Your task to perform on an android device: open app "Facebook Lite" Image 0: 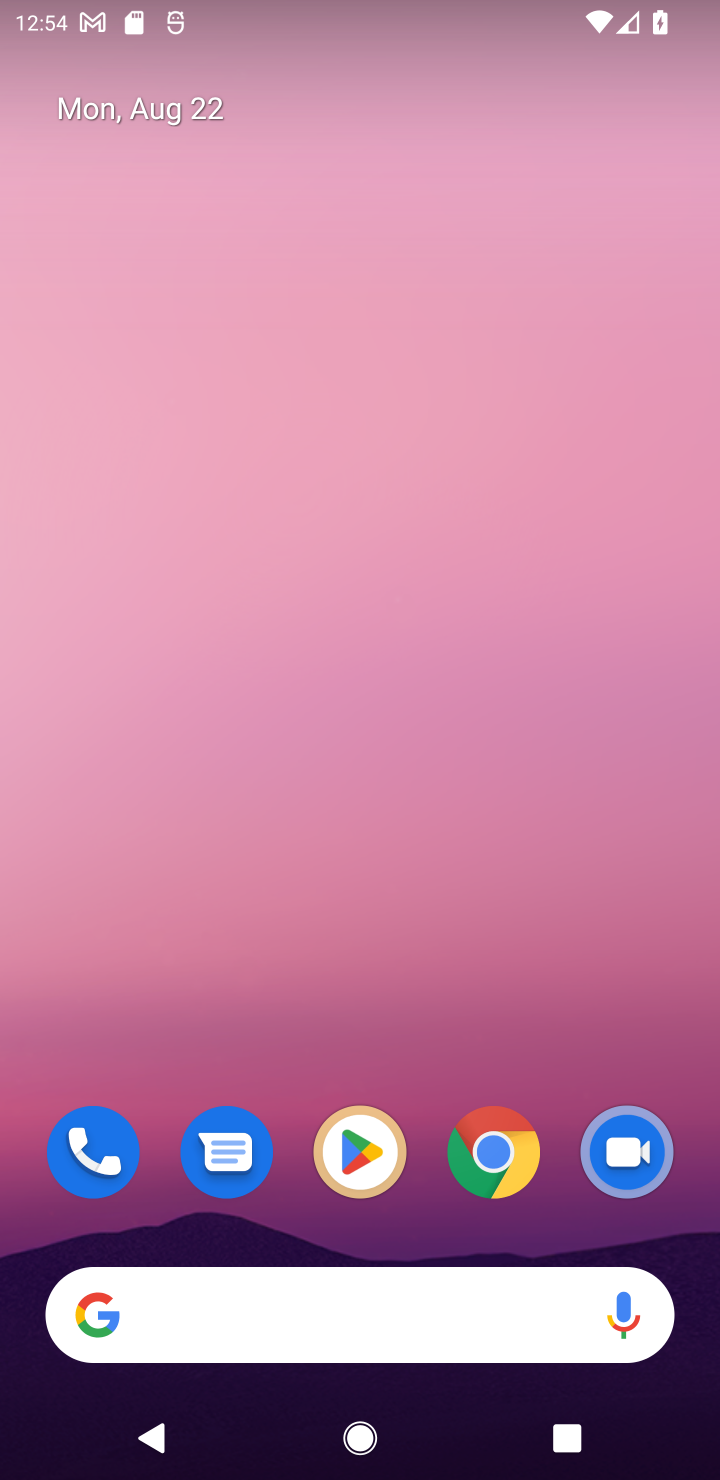
Step 0: click (345, 1137)
Your task to perform on an android device: open app "Facebook Lite" Image 1: 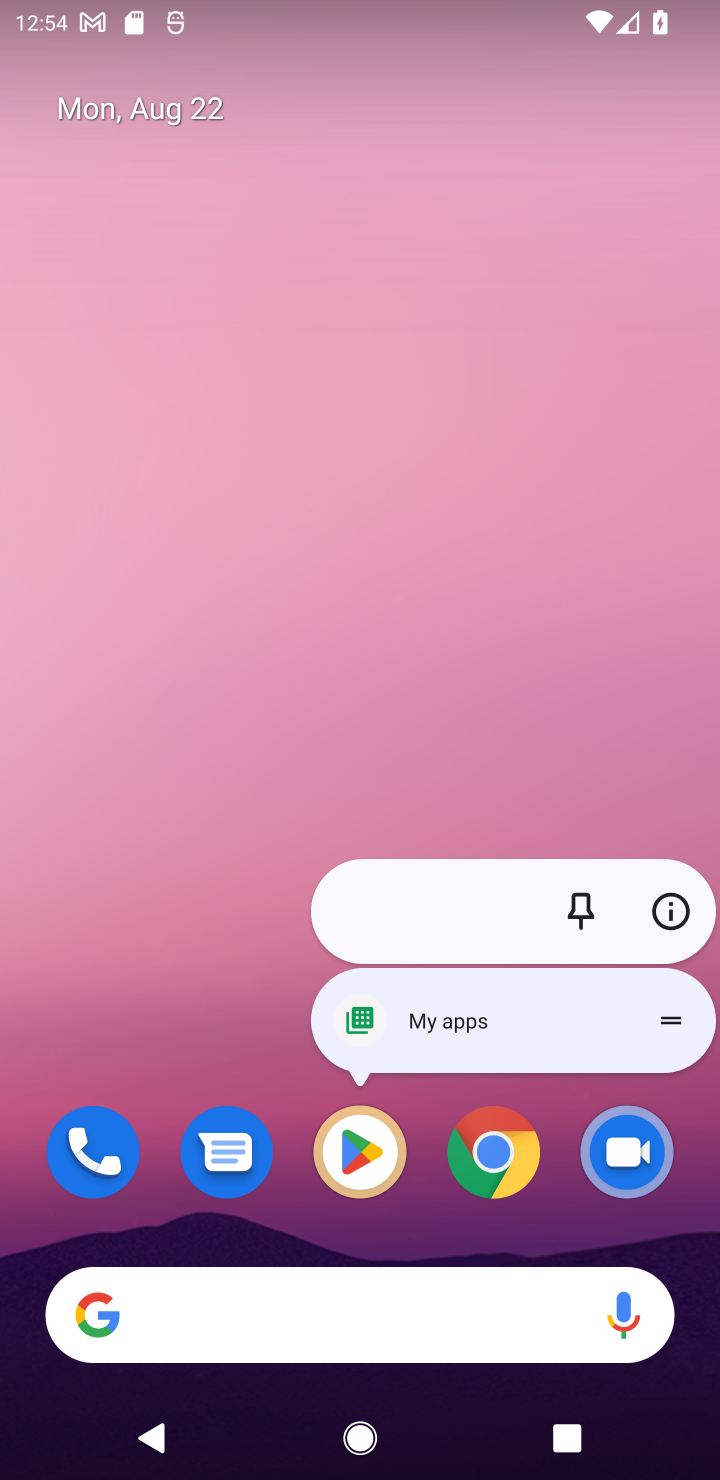
Step 1: click (345, 1169)
Your task to perform on an android device: open app "Facebook Lite" Image 2: 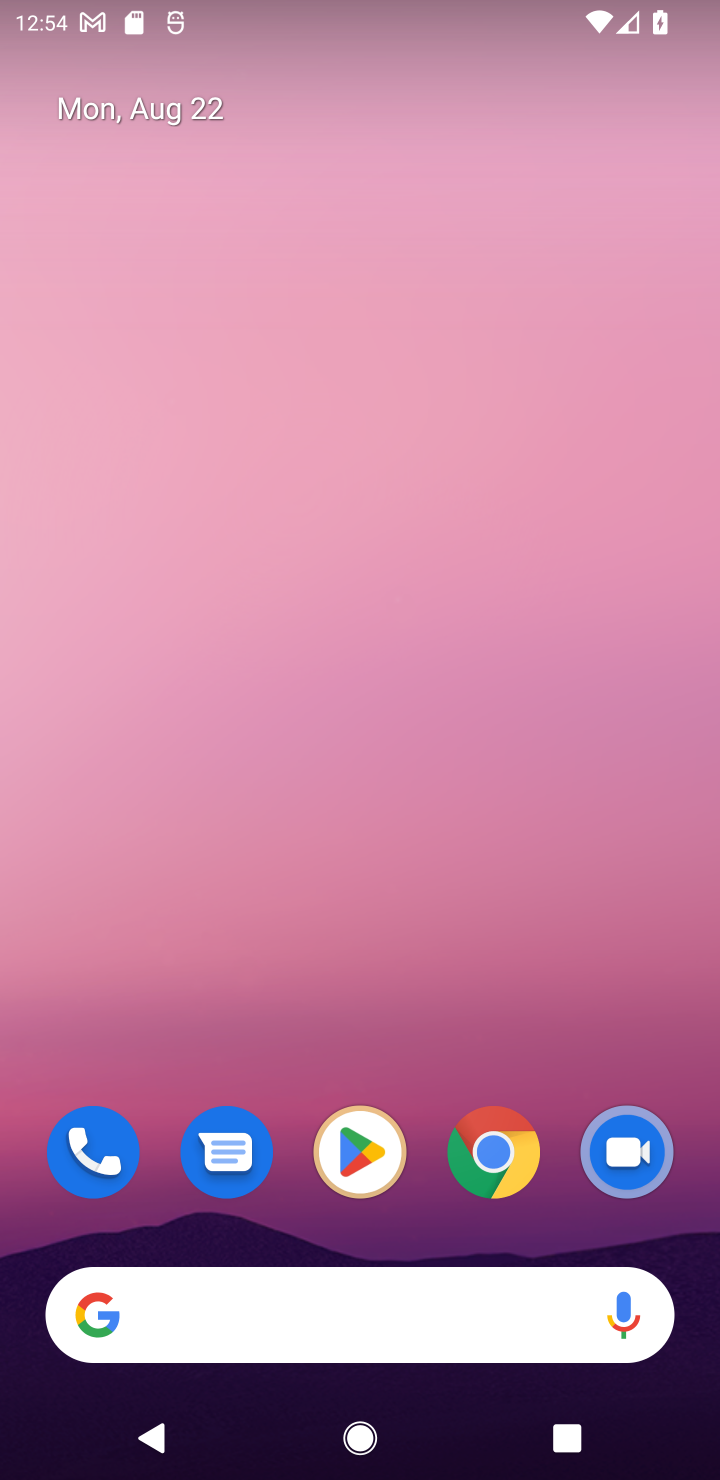
Step 2: click (345, 1169)
Your task to perform on an android device: open app "Facebook Lite" Image 3: 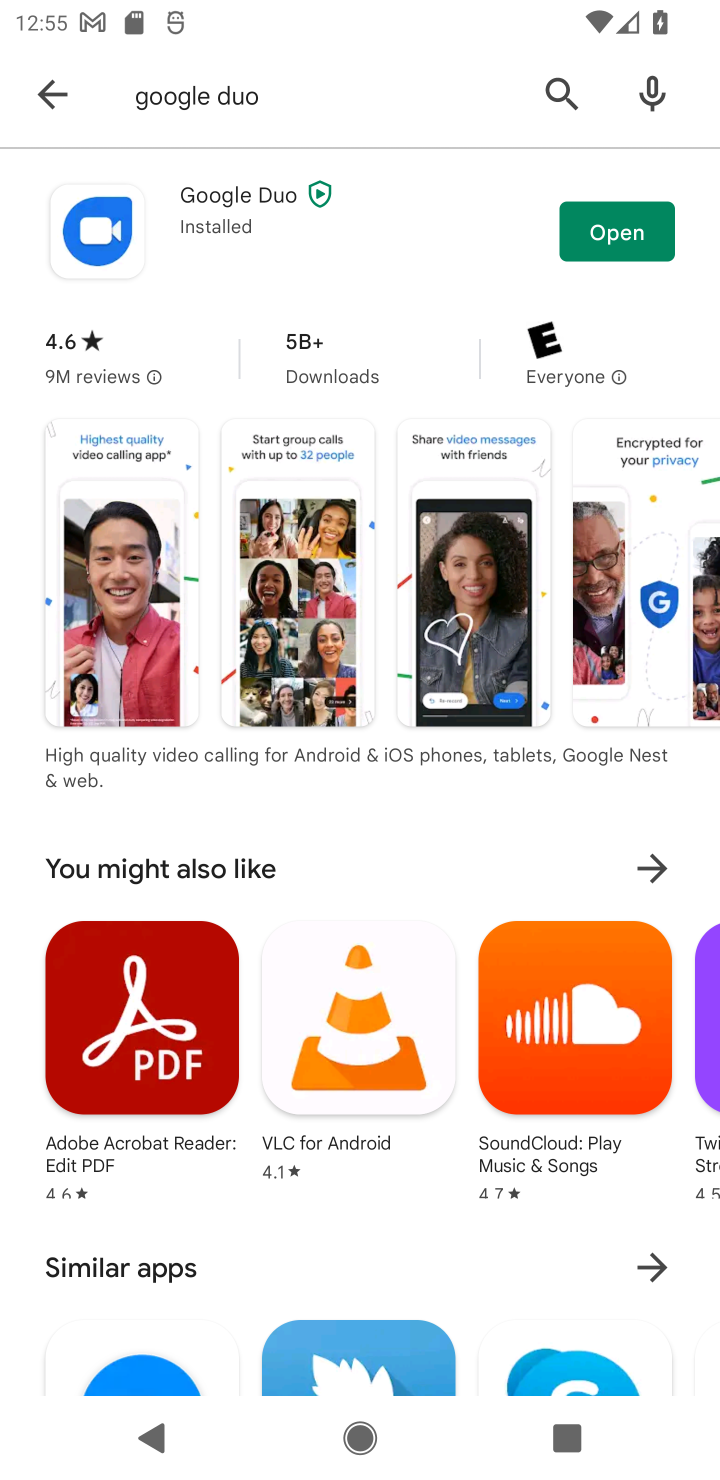
Step 3: click (39, 95)
Your task to perform on an android device: open app "Facebook Lite" Image 4: 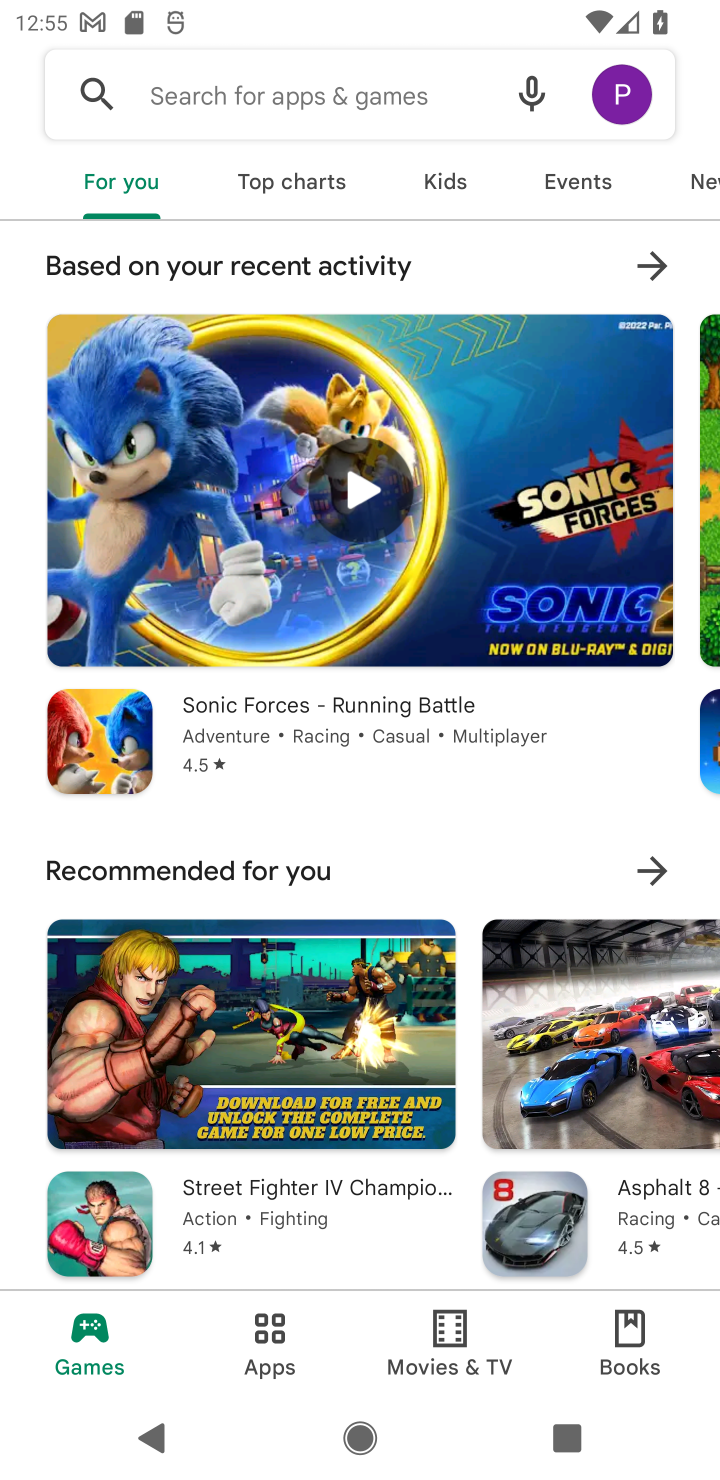
Step 4: click (275, 78)
Your task to perform on an android device: open app "Facebook Lite" Image 5: 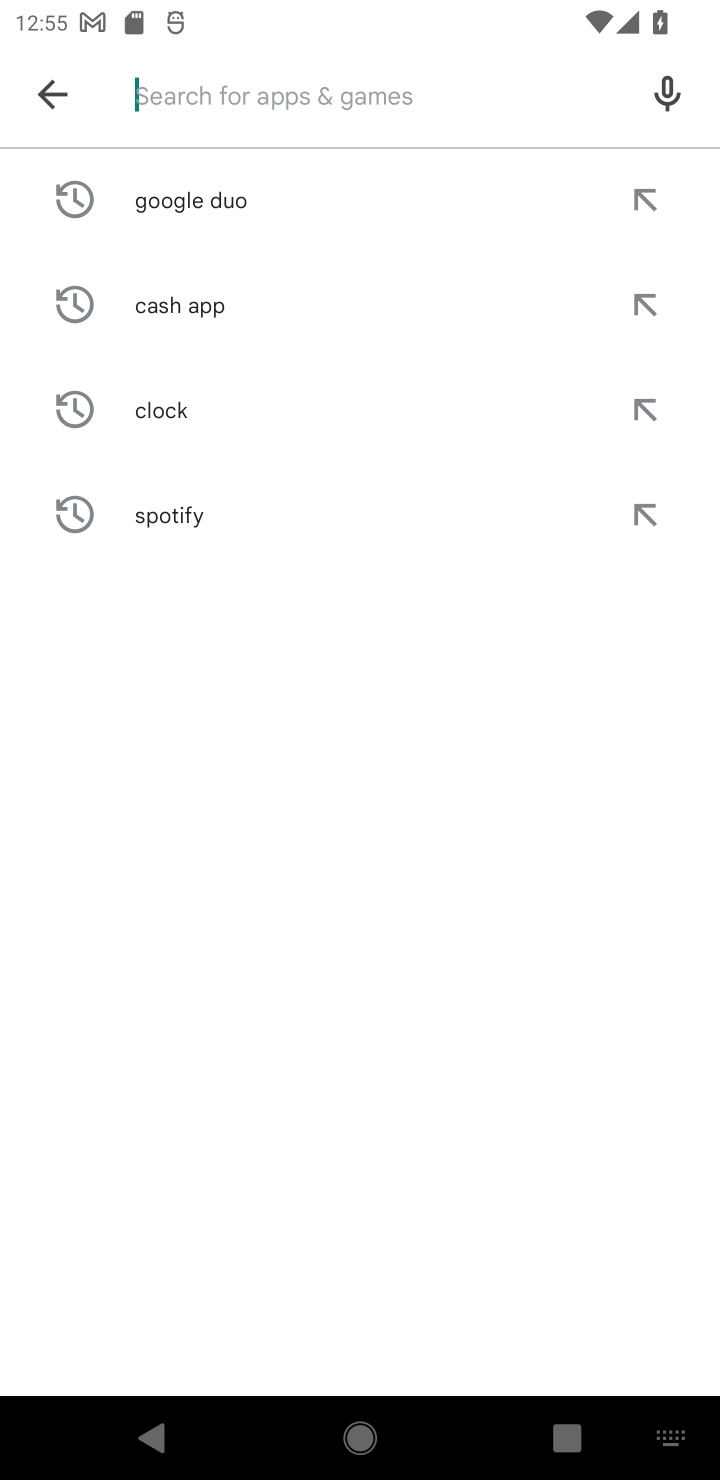
Step 5: type "Facebook Lite"
Your task to perform on an android device: open app "Facebook Lite" Image 6: 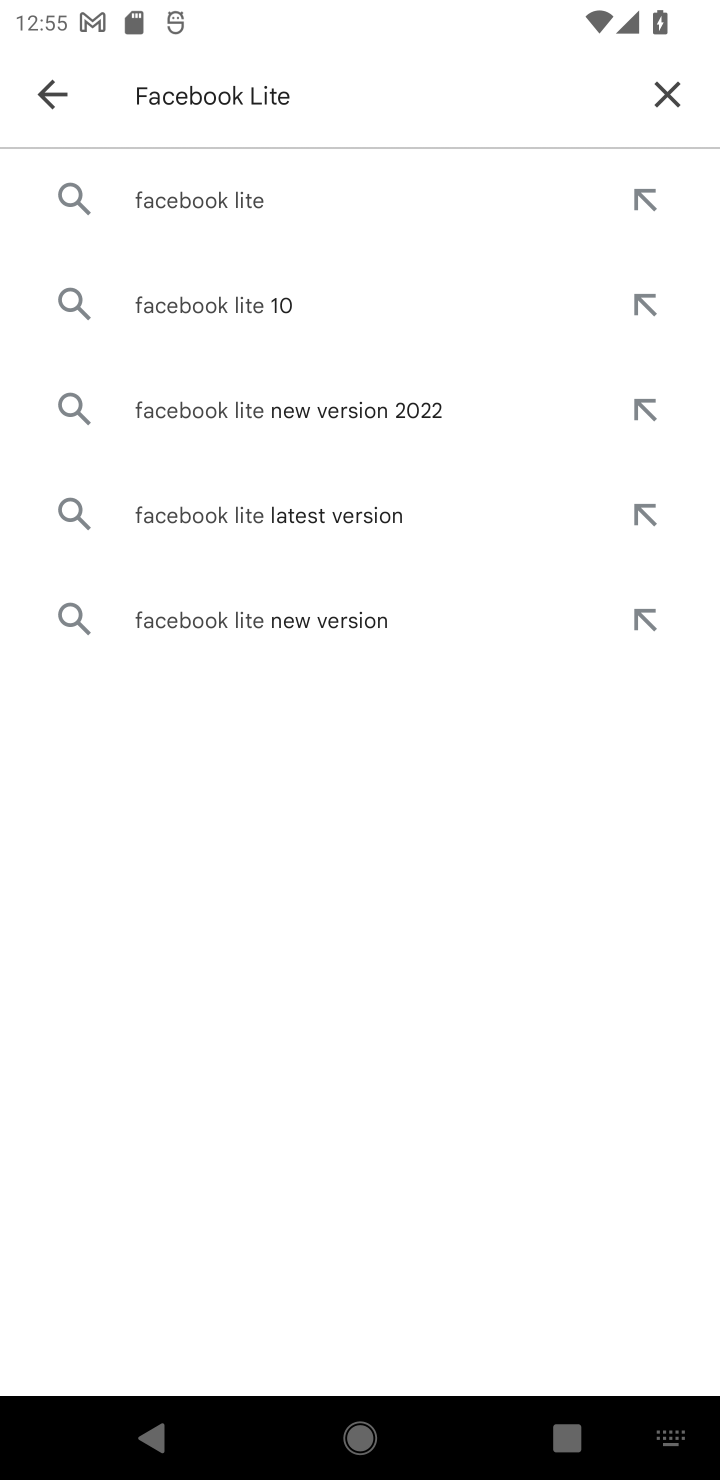
Step 6: click (177, 196)
Your task to perform on an android device: open app "Facebook Lite" Image 7: 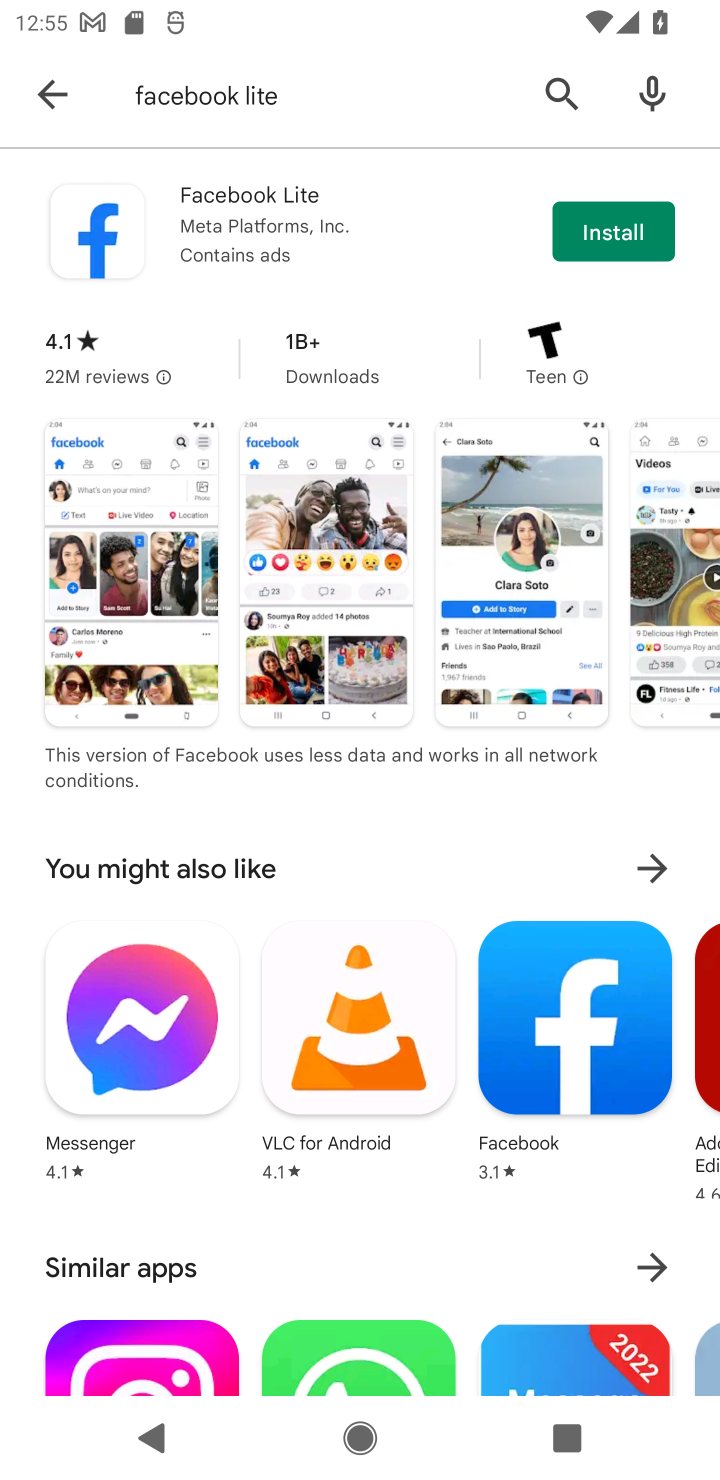
Step 7: click (647, 244)
Your task to perform on an android device: open app "Facebook Lite" Image 8: 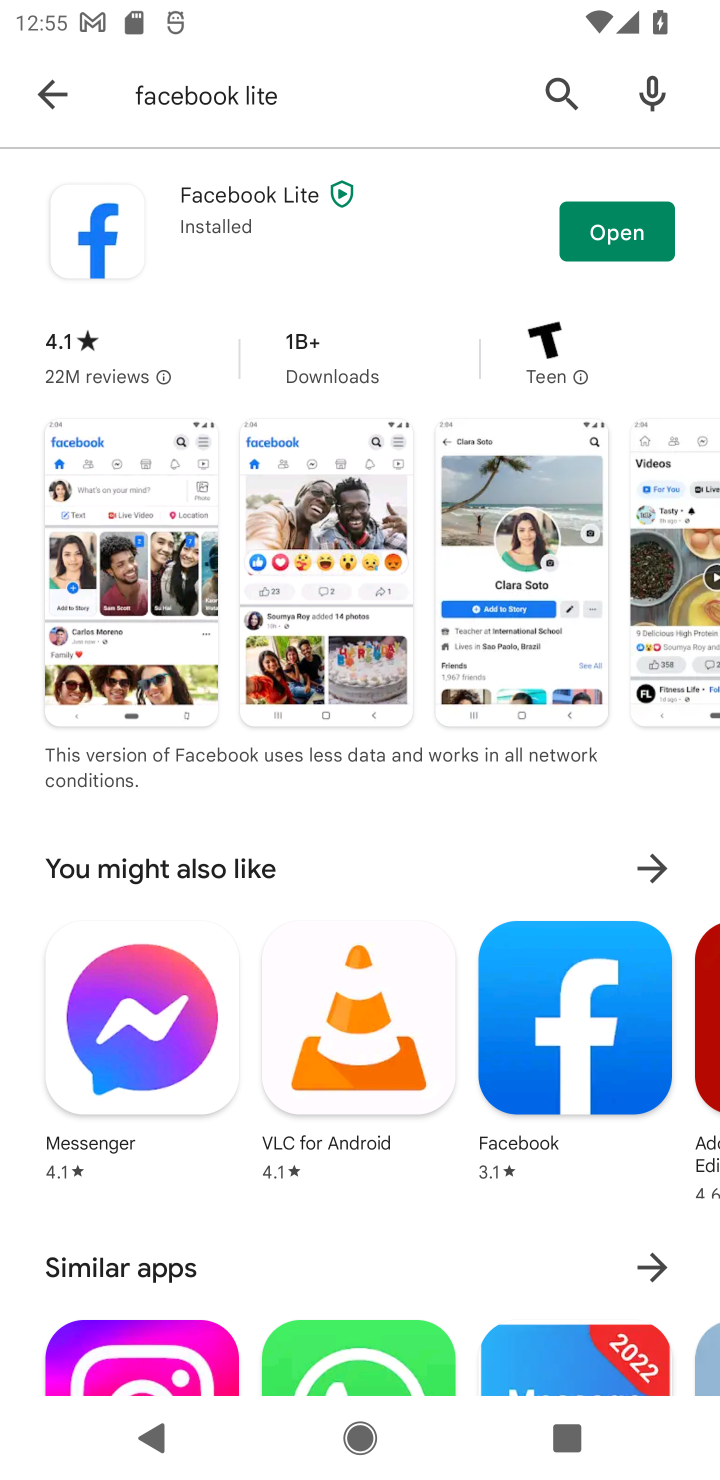
Step 8: click (647, 244)
Your task to perform on an android device: open app "Facebook Lite" Image 9: 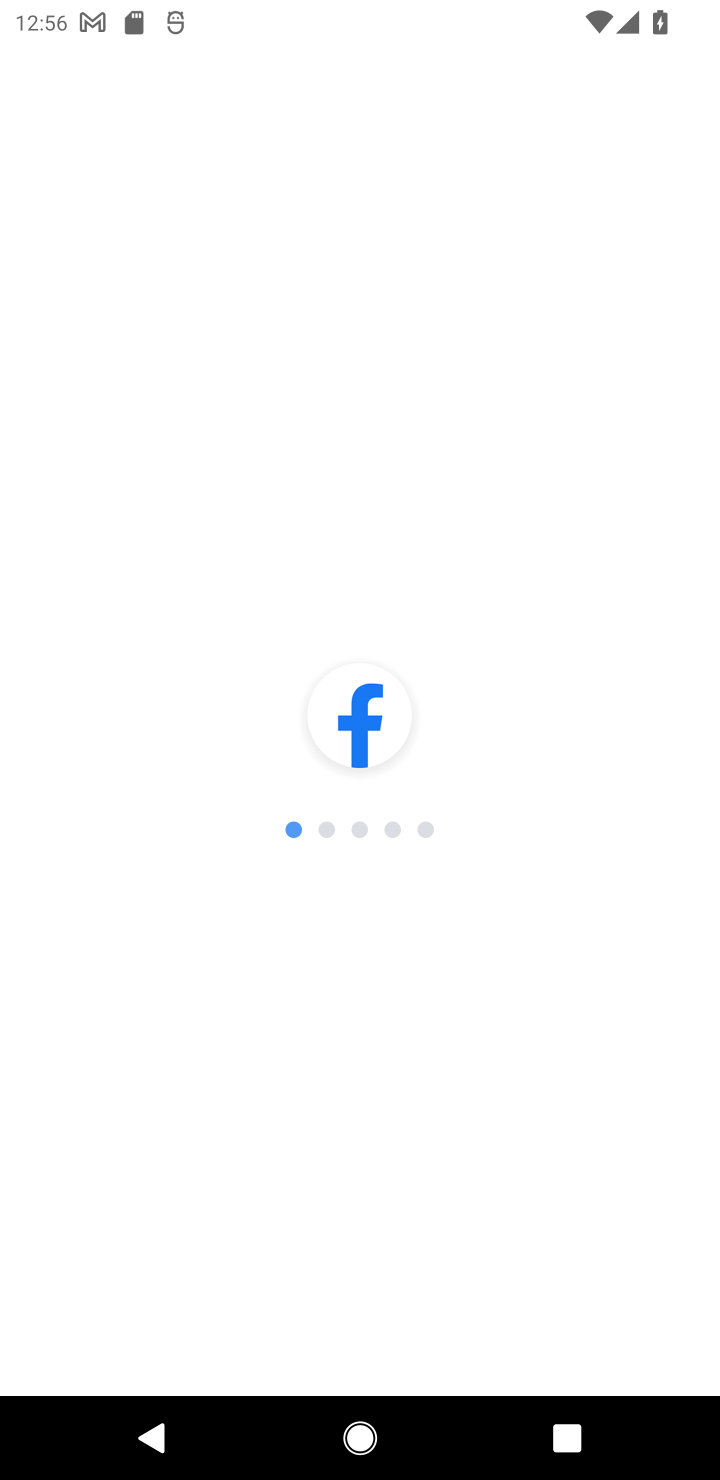
Step 9: task complete